Your task to perform on an android device: open device folders in google photos Image 0: 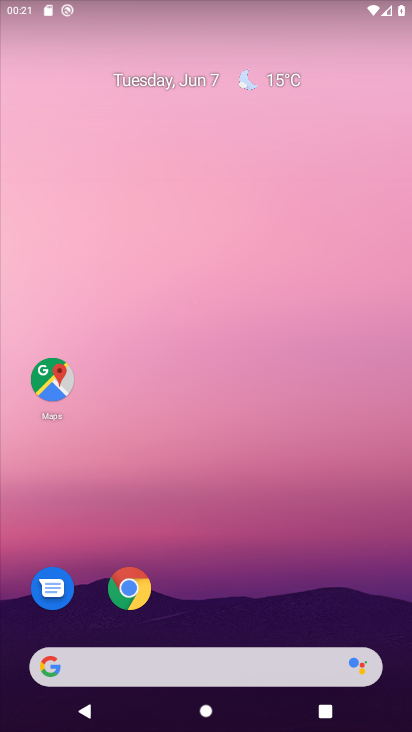
Step 0: drag from (207, 572) to (215, 328)
Your task to perform on an android device: open device folders in google photos Image 1: 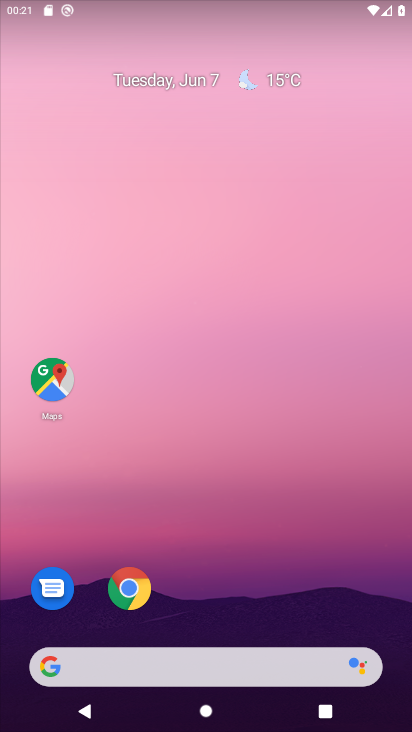
Step 1: drag from (227, 588) to (210, 252)
Your task to perform on an android device: open device folders in google photos Image 2: 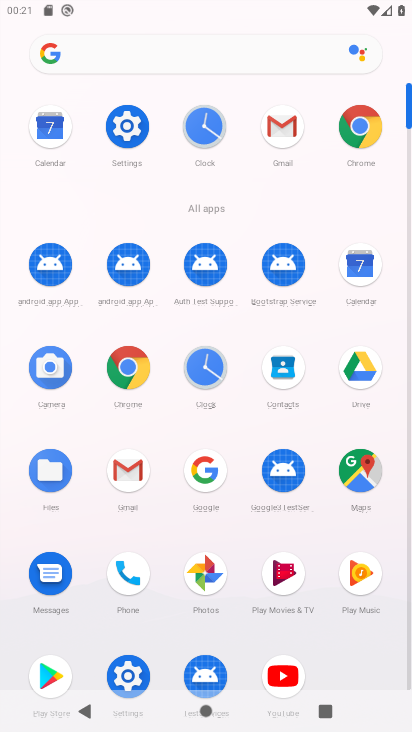
Step 2: click (213, 567)
Your task to perform on an android device: open device folders in google photos Image 3: 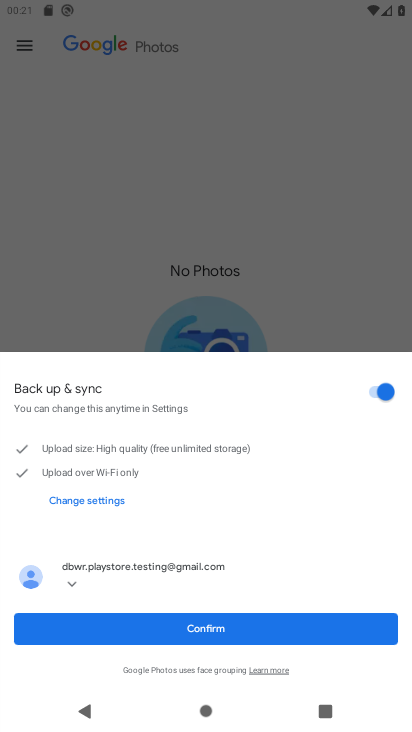
Step 3: click (311, 633)
Your task to perform on an android device: open device folders in google photos Image 4: 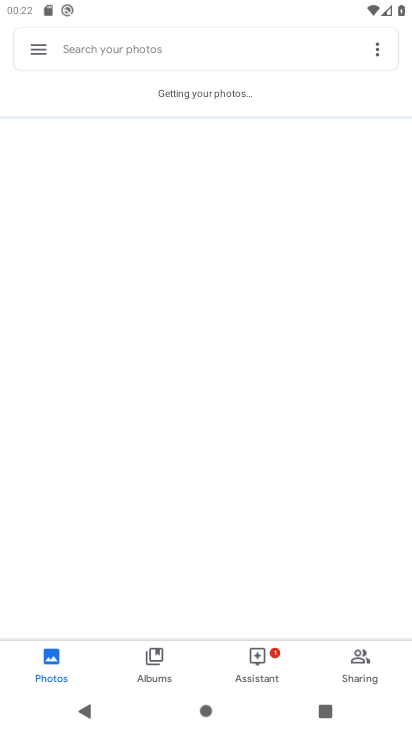
Step 4: click (163, 664)
Your task to perform on an android device: open device folders in google photos Image 5: 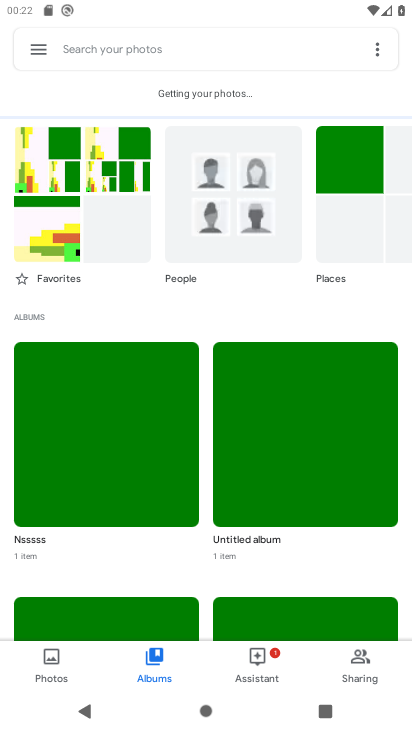
Step 5: task complete